Your task to perform on an android device: turn smart compose on in the gmail app Image 0: 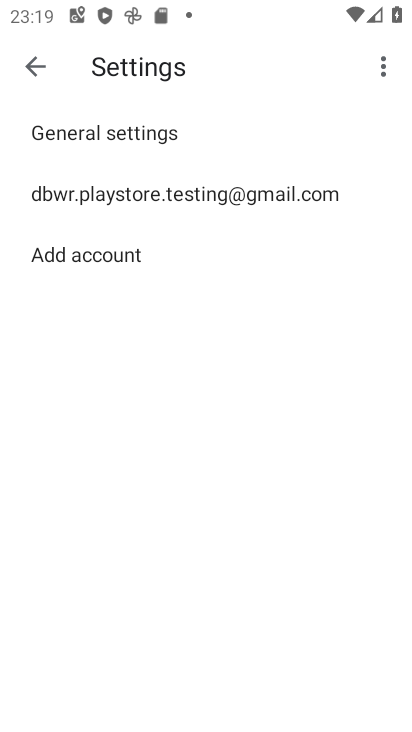
Step 0: click (400, 61)
Your task to perform on an android device: turn smart compose on in the gmail app Image 1: 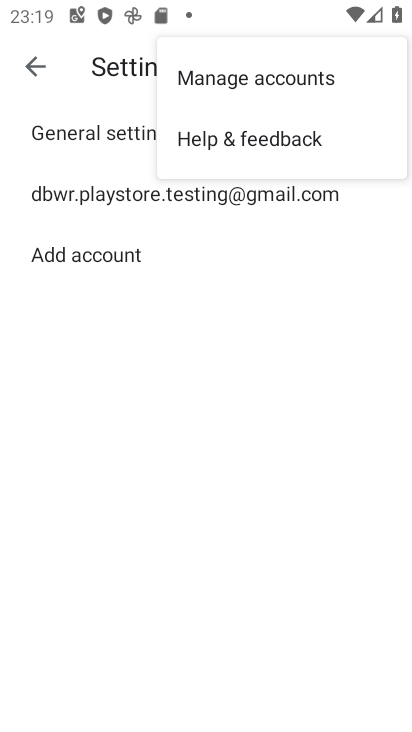
Step 1: press home button
Your task to perform on an android device: turn smart compose on in the gmail app Image 2: 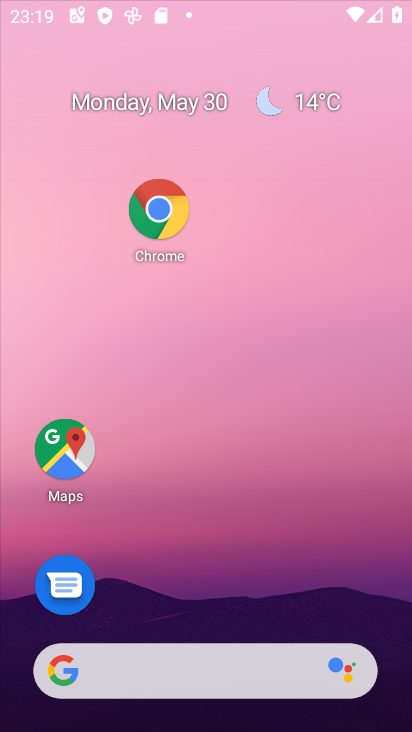
Step 2: drag from (66, 565) to (3, 1)
Your task to perform on an android device: turn smart compose on in the gmail app Image 3: 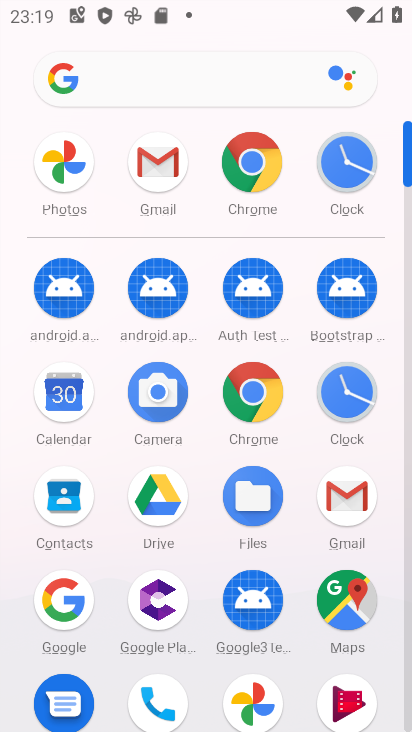
Step 3: click (355, 495)
Your task to perform on an android device: turn smart compose on in the gmail app Image 4: 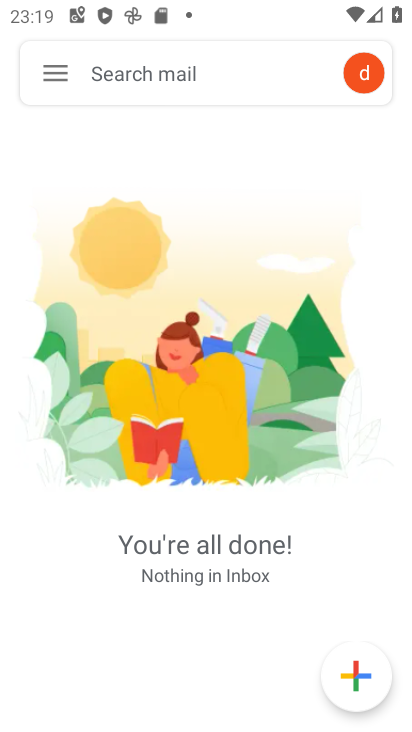
Step 4: click (62, 66)
Your task to perform on an android device: turn smart compose on in the gmail app Image 5: 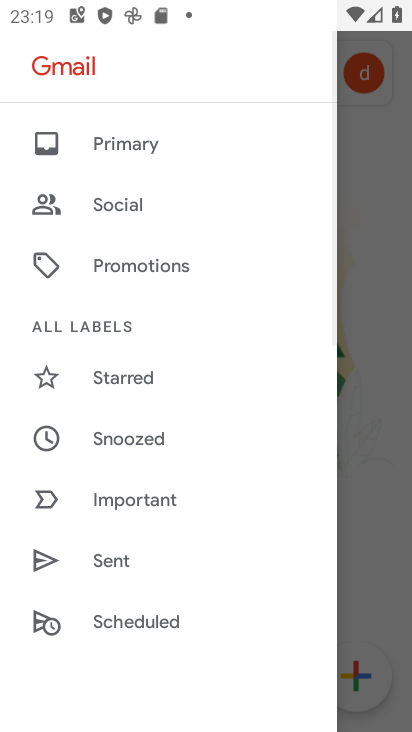
Step 5: drag from (137, 588) to (276, 58)
Your task to perform on an android device: turn smart compose on in the gmail app Image 6: 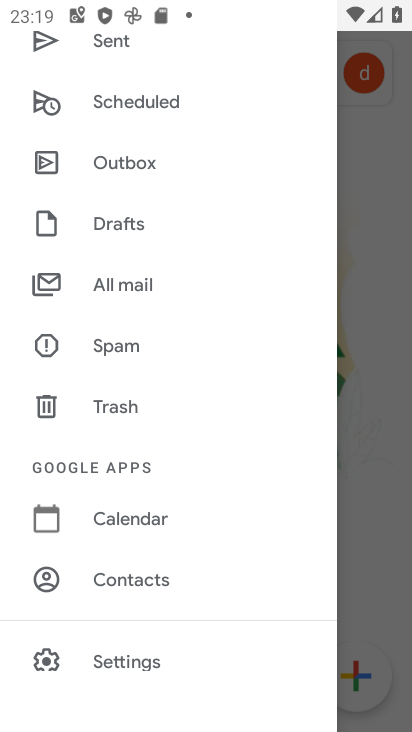
Step 6: drag from (135, 574) to (273, 93)
Your task to perform on an android device: turn smart compose on in the gmail app Image 7: 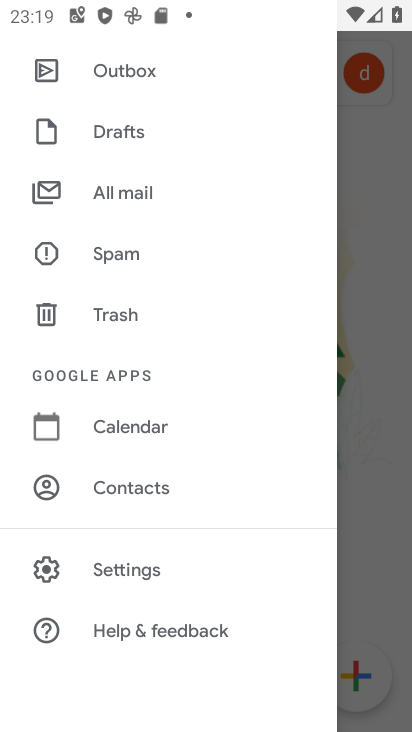
Step 7: click (150, 576)
Your task to perform on an android device: turn smart compose on in the gmail app Image 8: 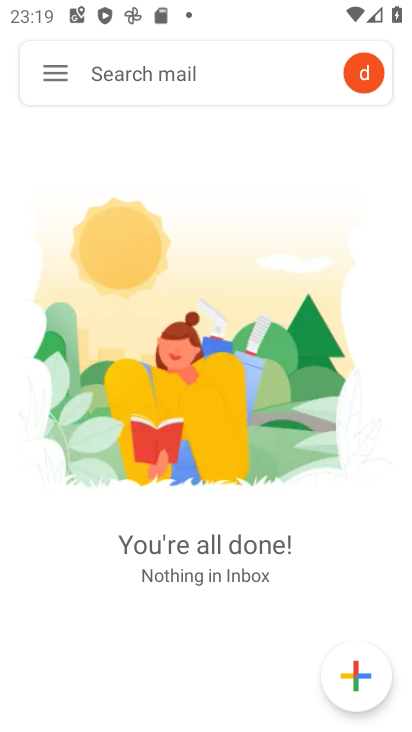
Step 8: task complete